Your task to perform on an android device: Show me recent news Image 0: 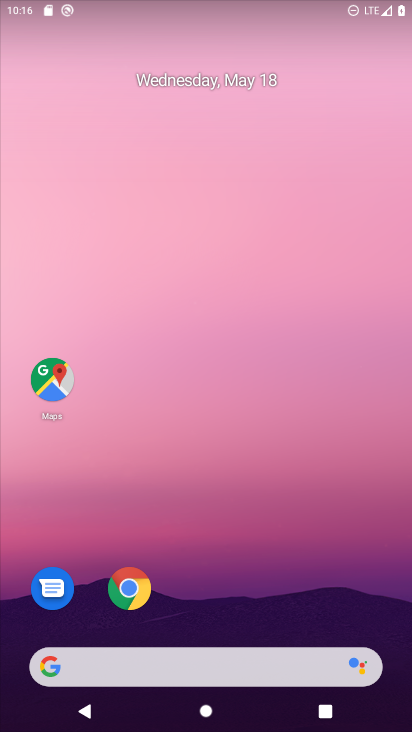
Step 0: click (95, 663)
Your task to perform on an android device: Show me recent news Image 1: 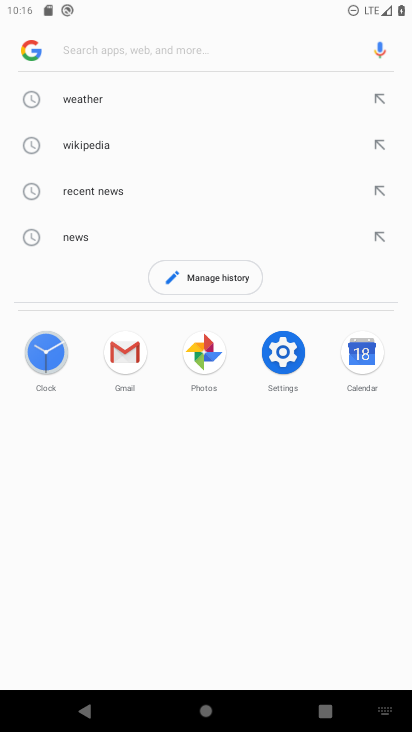
Step 1: click (91, 190)
Your task to perform on an android device: Show me recent news Image 2: 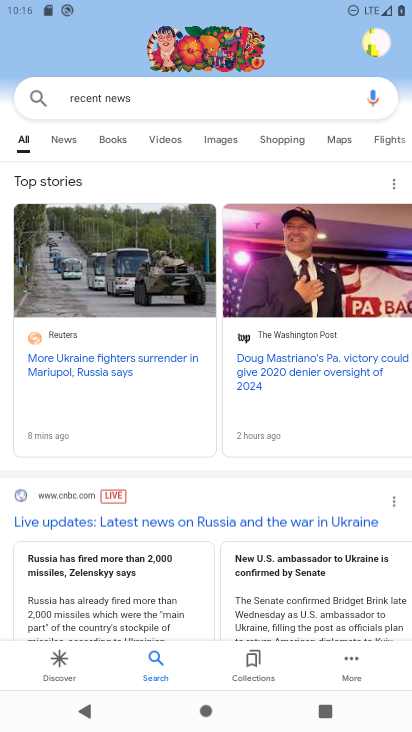
Step 2: click (69, 145)
Your task to perform on an android device: Show me recent news Image 3: 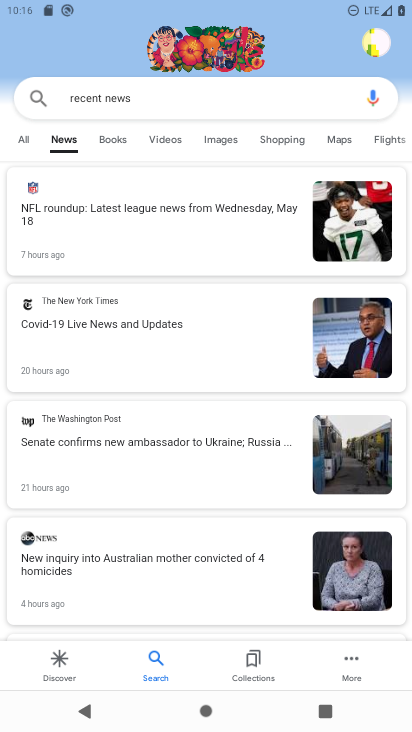
Step 3: drag from (119, 505) to (112, 343)
Your task to perform on an android device: Show me recent news Image 4: 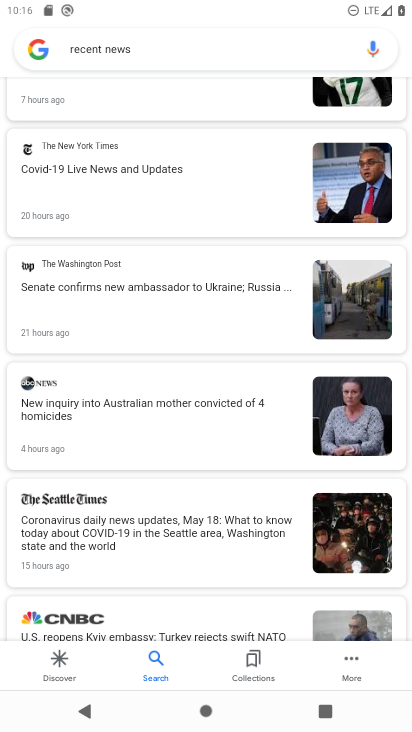
Step 4: drag from (156, 535) to (130, 212)
Your task to perform on an android device: Show me recent news Image 5: 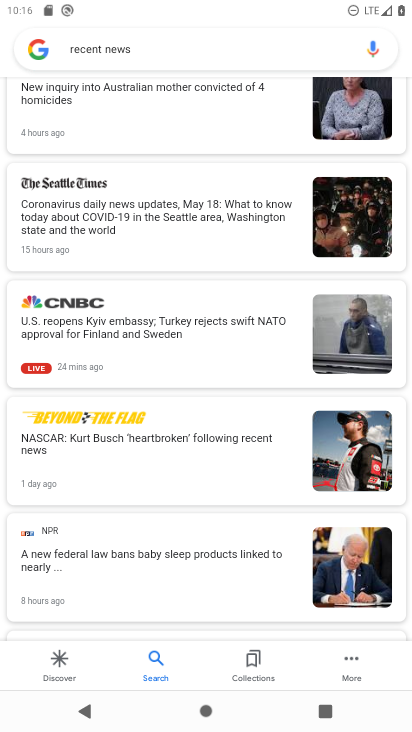
Step 5: drag from (168, 588) to (151, 225)
Your task to perform on an android device: Show me recent news Image 6: 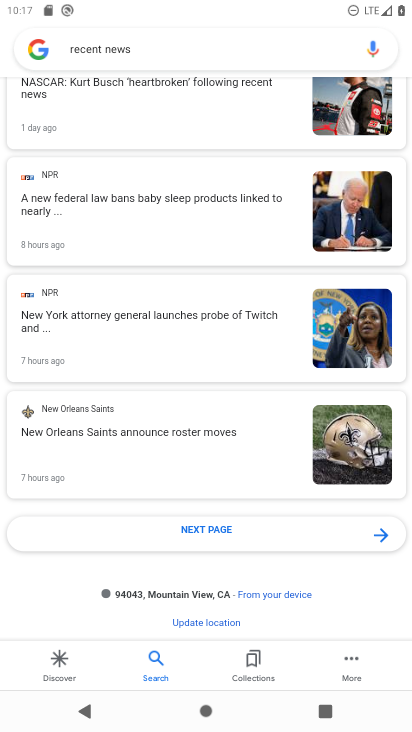
Step 6: drag from (148, 217) to (142, 490)
Your task to perform on an android device: Show me recent news Image 7: 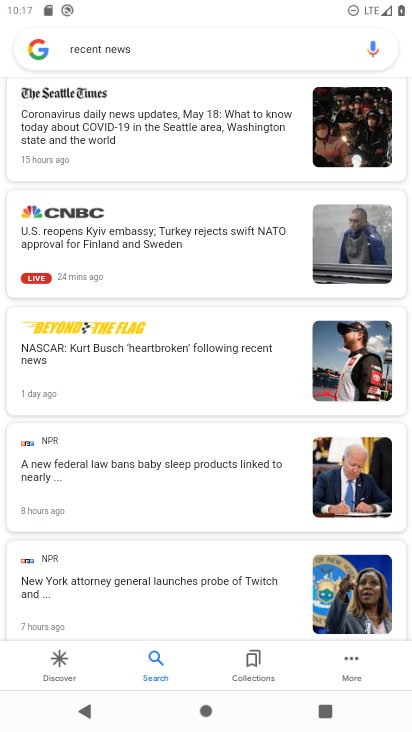
Step 7: click (117, 248)
Your task to perform on an android device: Show me recent news Image 8: 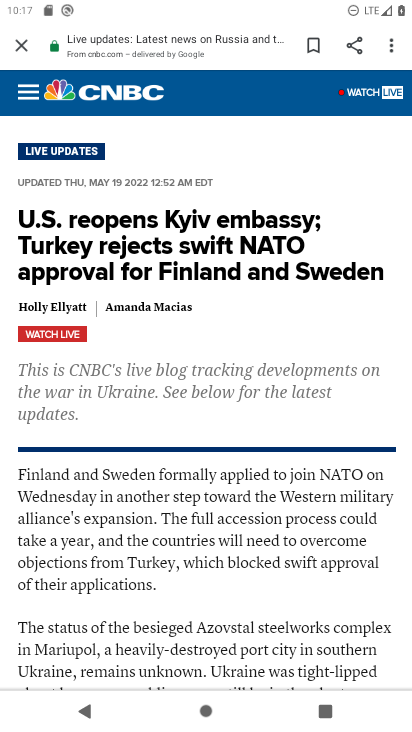
Step 8: task complete